Your task to perform on an android device: turn on sleep mode Image 0: 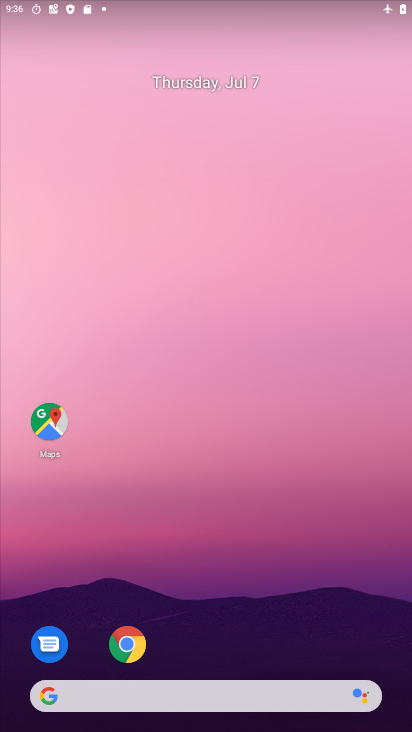
Step 0: drag from (315, 541) to (193, 165)
Your task to perform on an android device: turn on sleep mode Image 1: 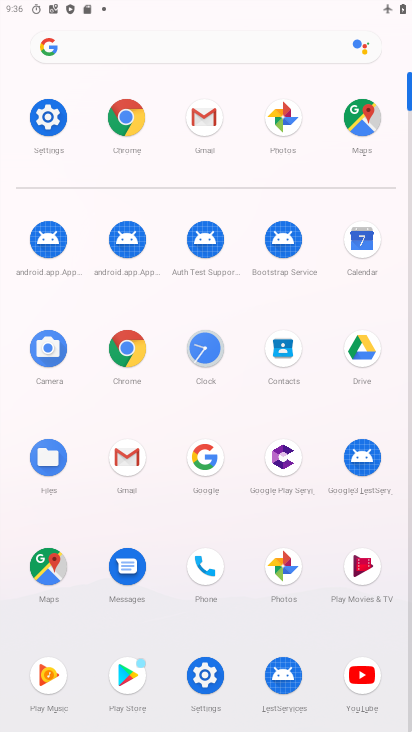
Step 1: click (55, 117)
Your task to perform on an android device: turn on sleep mode Image 2: 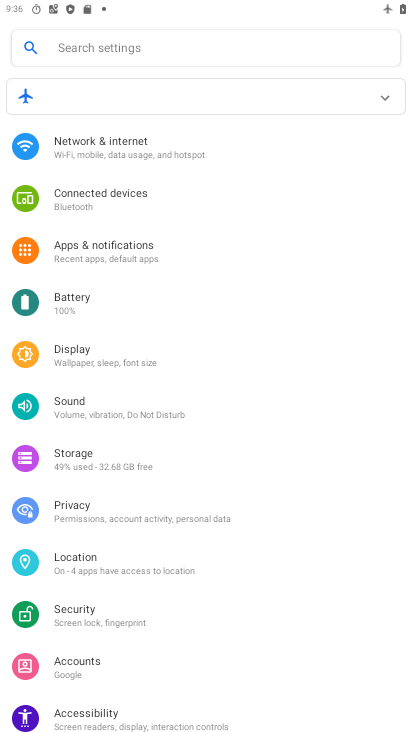
Step 2: click (67, 348)
Your task to perform on an android device: turn on sleep mode Image 3: 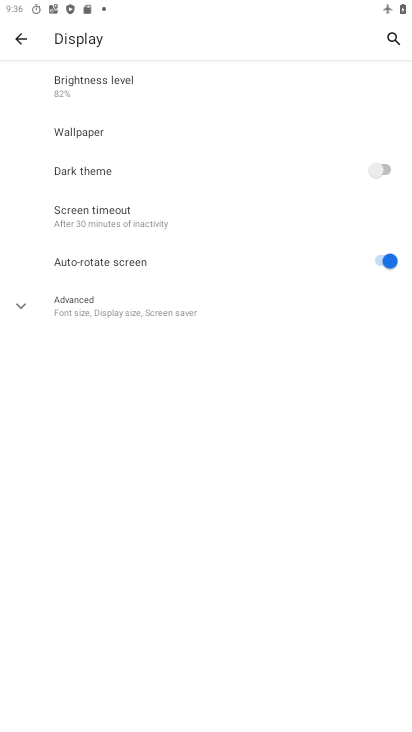
Step 3: click (167, 228)
Your task to perform on an android device: turn on sleep mode Image 4: 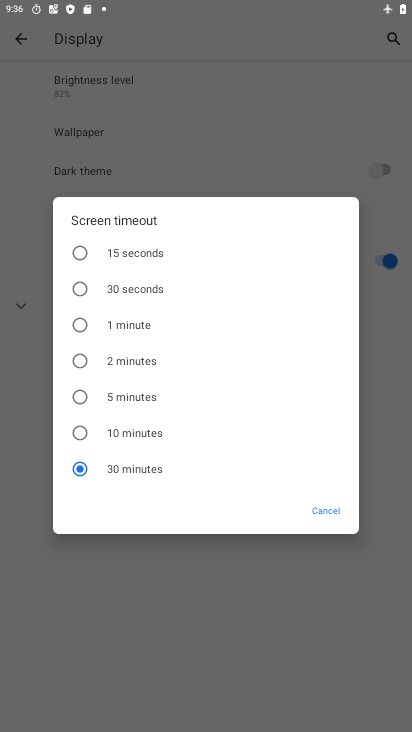
Step 4: task complete